Your task to perform on an android device: change the clock display to show seconds Image 0: 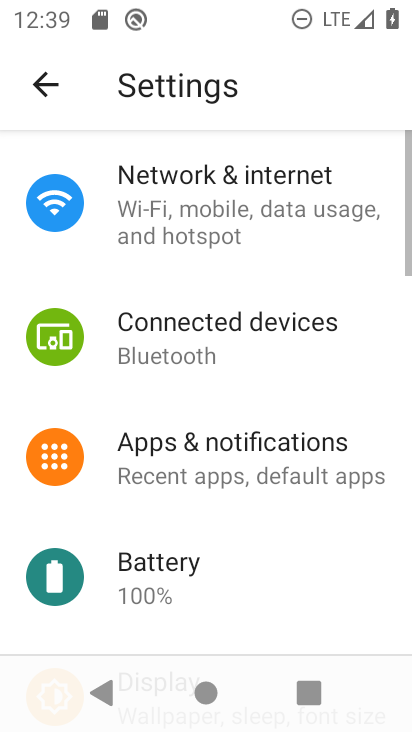
Step 0: press home button
Your task to perform on an android device: change the clock display to show seconds Image 1: 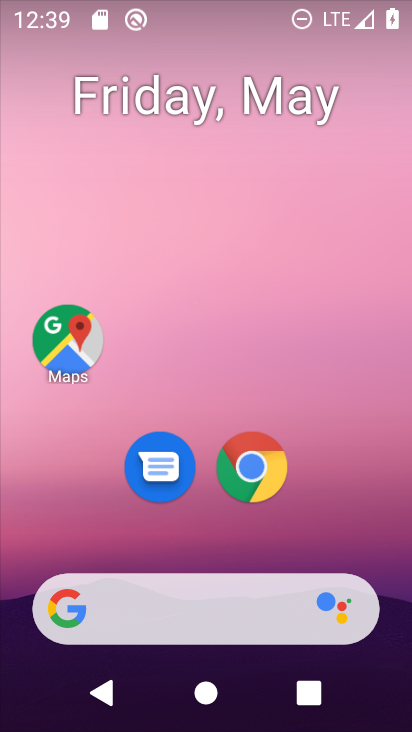
Step 1: drag from (297, 576) to (278, 52)
Your task to perform on an android device: change the clock display to show seconds Image 2: 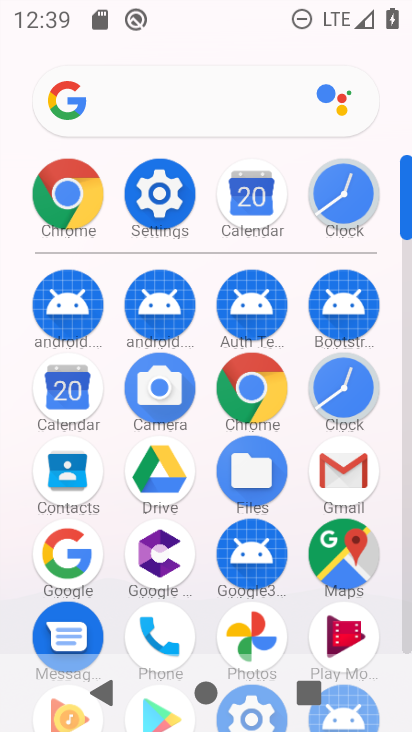
Step 2: click (364, 398)
Your task to perform on an android device: change the clock display to show seconds Image 3: 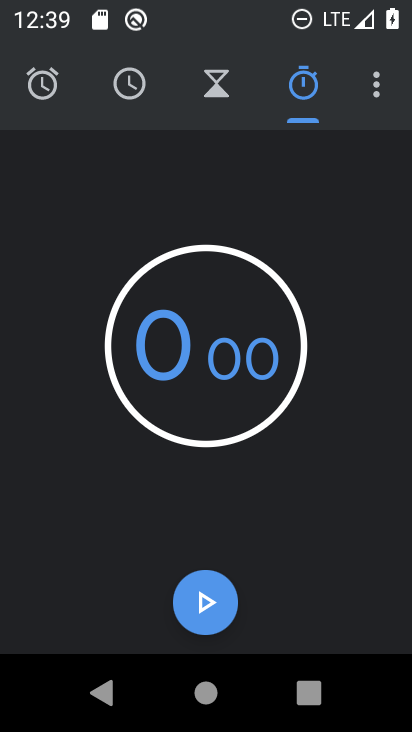
Step 3: click (375, 83)
Your task to perform on an android device: change the clock display to show seconds Image 4: 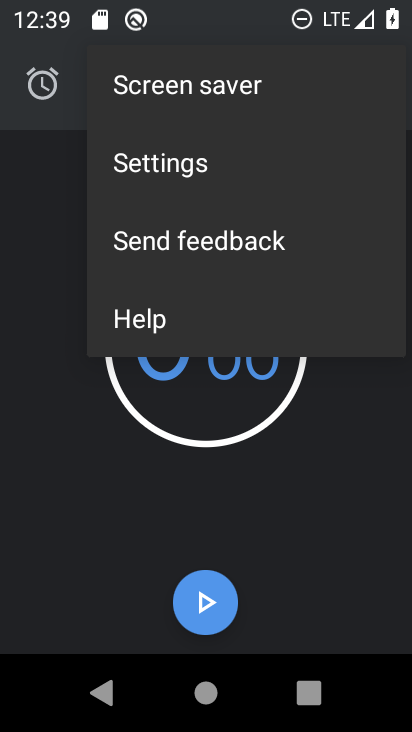
Step 4: click (238, 184)
Your task to perform on an android device: change the clock display to show seconds Image 5: 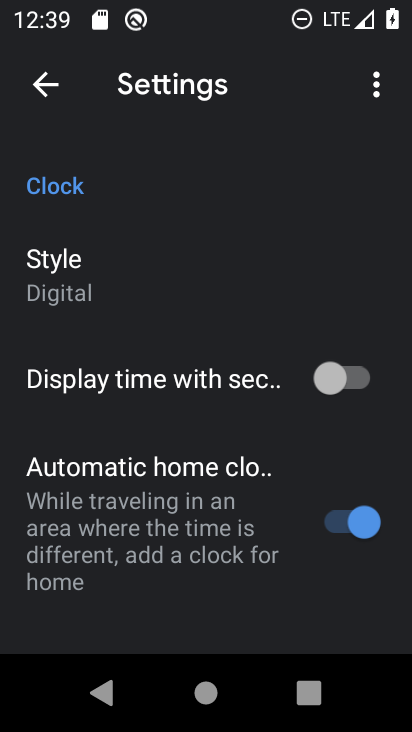
Step 5: click (350, 372)
Your task to perform on an android device: change the clock display to show seconds Image 6: 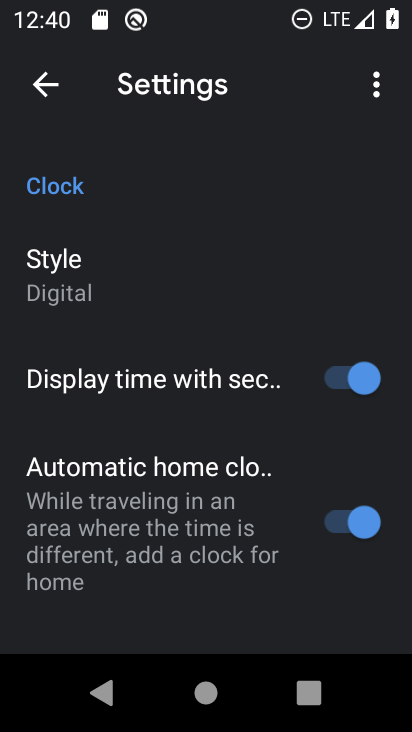
Step 6: task complete